Your task to perform on an android device: Open Google Chrome and open the bookmarks view Image 0: 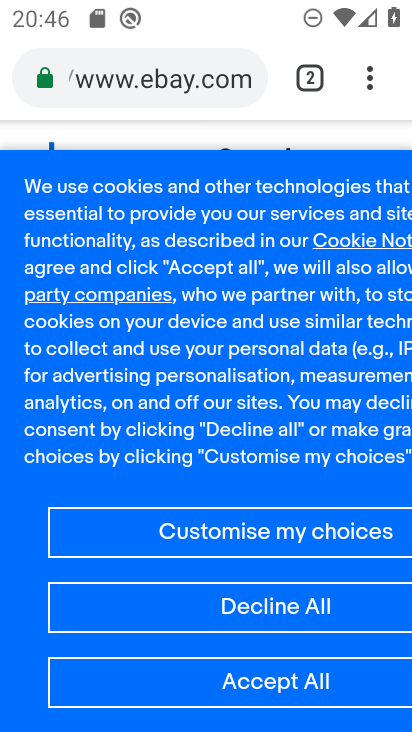
Step 0: click (363, 86)
Your task to perform on an android device: Open Google Chrome and open the bookmarks view Image 1: 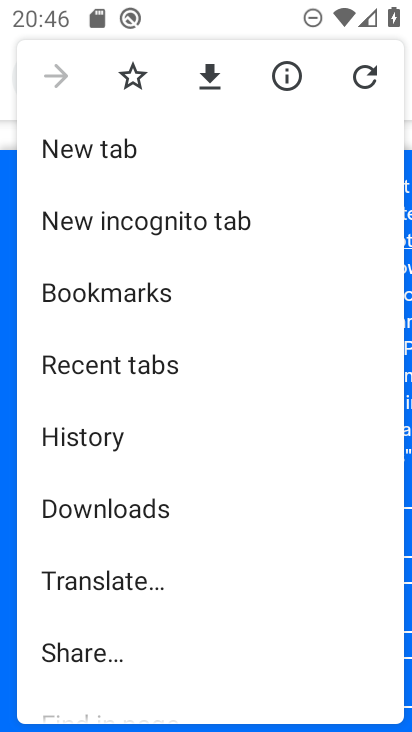
Step 1: click (120, 292)
Your task to perform on an android device: Open Google Chrome and open the bookmarks view Image 2: 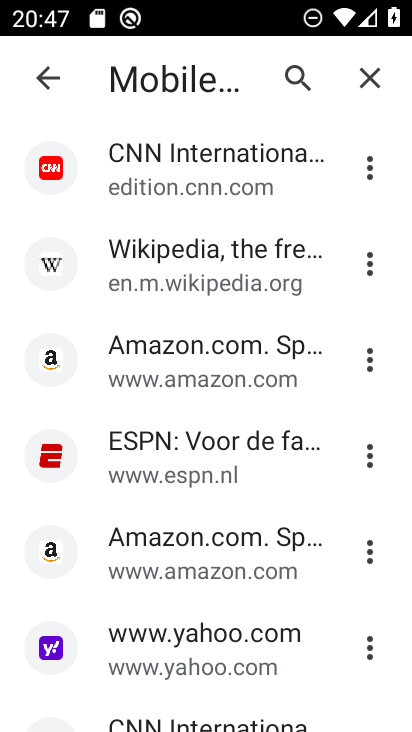
Step 2: task complete